Your task to perform on an android device: Go to display settings Image 0: 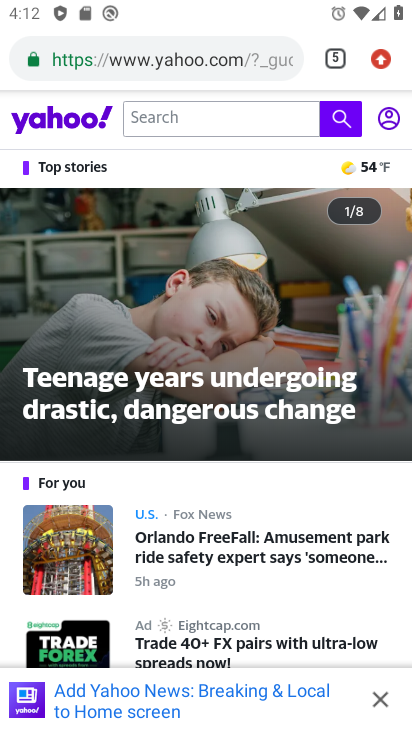
Step 0: press home button
Your task to perform on an android device: Go to display settings Image 1: 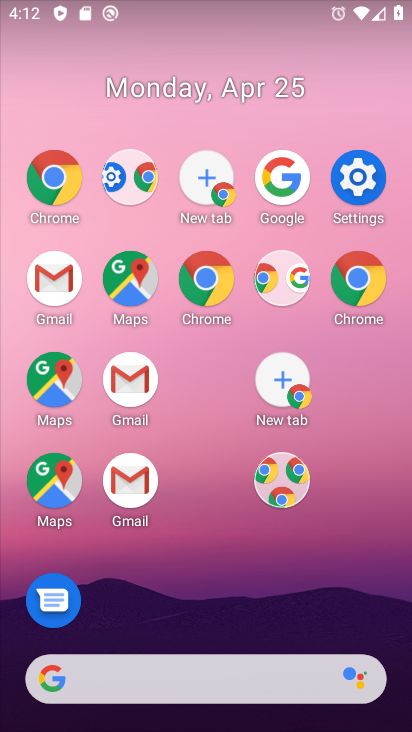
Step 1: drag from (289, 630) to (82, 23)
Your task to perform on an android device: Go to display settings Image 2: 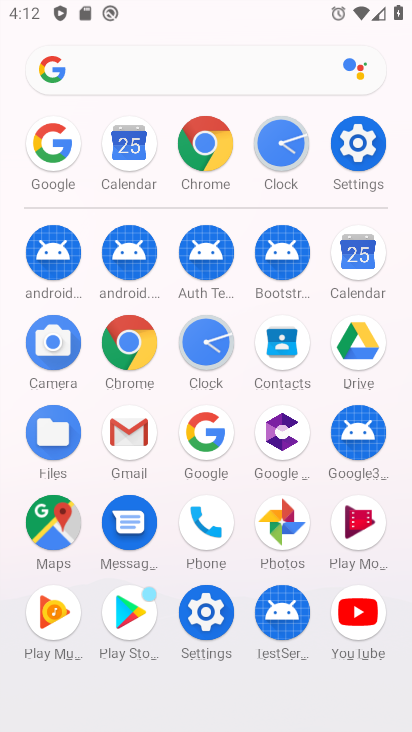
Step 2: click (345, 146)
Your task to perform on an android device: Go to display settings Image 3: 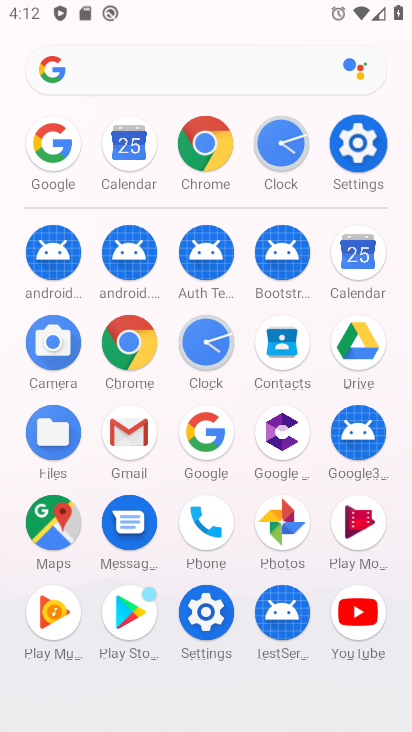
Step 3: click (345, 146)
Your task to perform on an android device: Go to display settings Image 4: 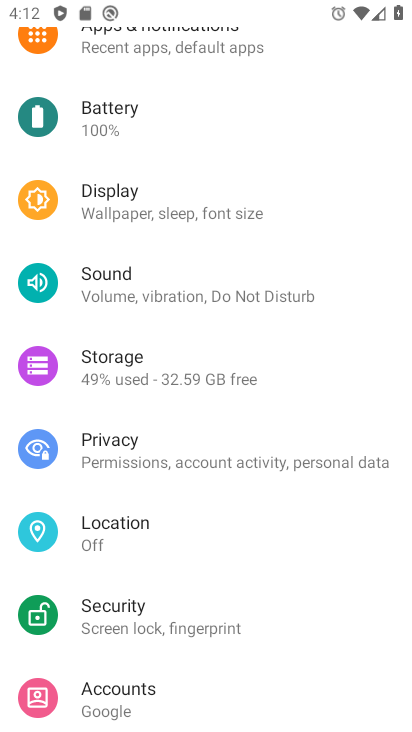
Step 4: click (115, 215)
Your task to perform on an android device: Go to display settings Image 5: 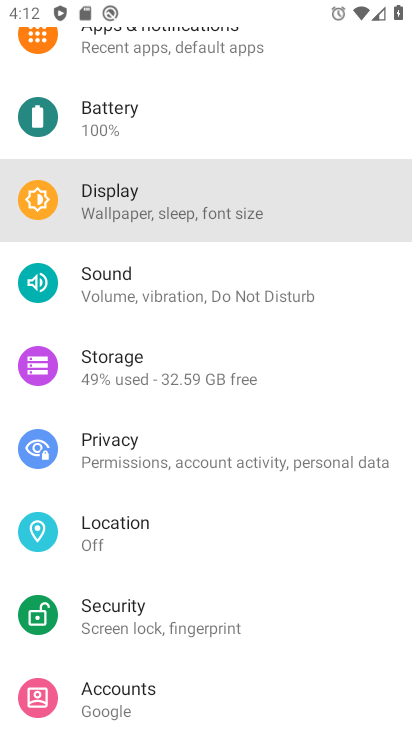
Step 5: click (114, 214)
Your task to perform on an android device: Go to display settings Image 6: 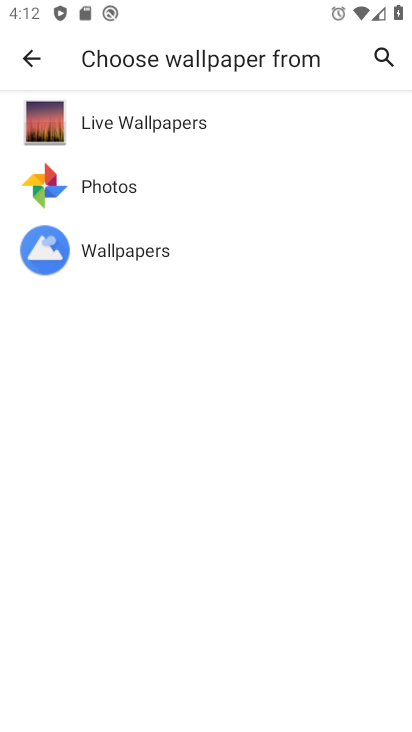
Step 6: click (31, 57)
Your task to perform on an android device: Go to display settings Image 7: 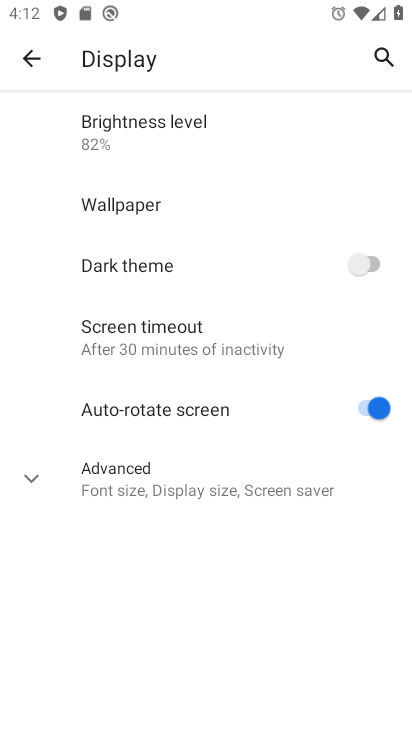
Step 7: task complete